Your task to perform on an android device: Go to accessibility settings Image 0: 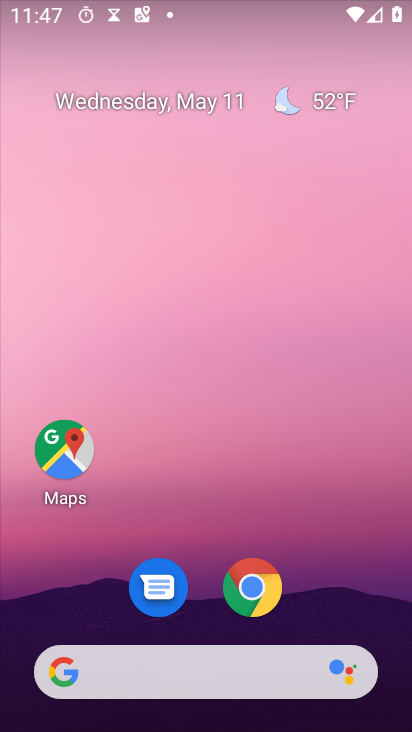
Step 0: drag from (182, 692) to (365, 141)
Your task to perform on an android device: Go to accessibility settings Image 1: 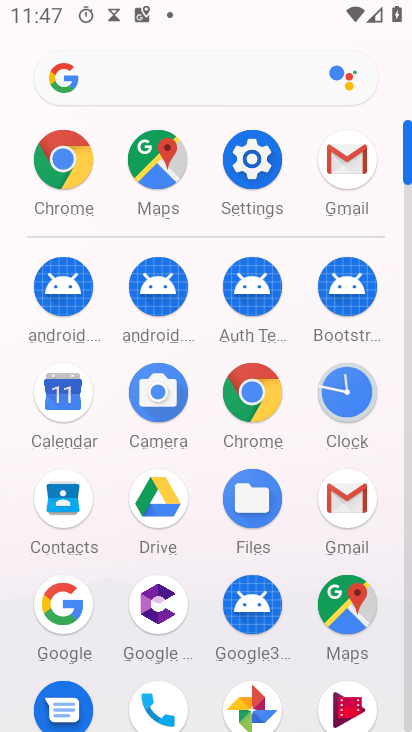
Step 1: click (275, 165)
Your task to perform on an android device: Go to accessibility settings Image 2: 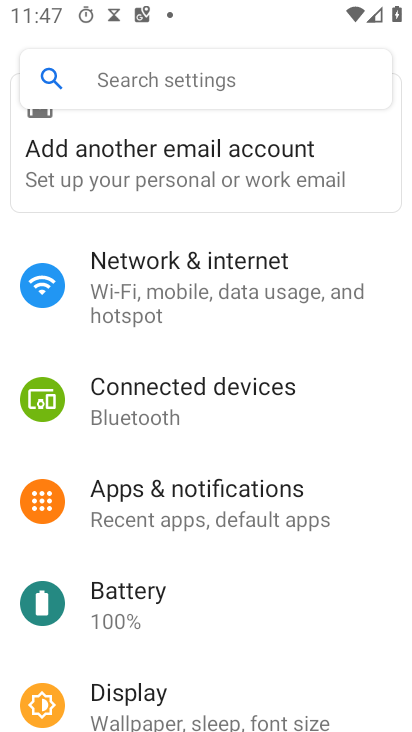
Step 2: click (99, 84)
Your task to perform on an android device: Go to accessibility settings Image 3: 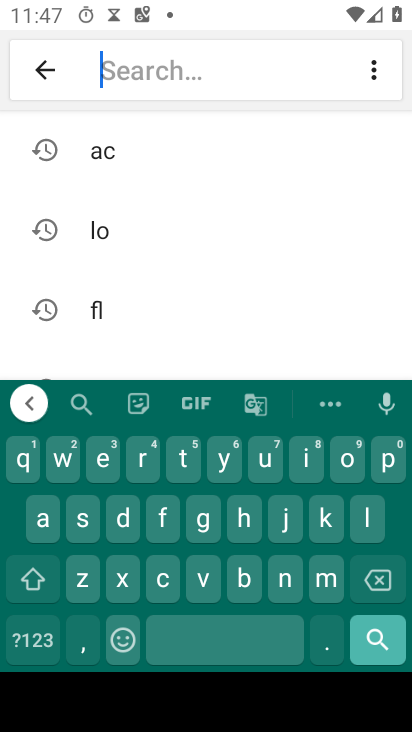
Step 3: click (38, 530)
Your task to perform on an android device: Go to accessibility settings Image 4: 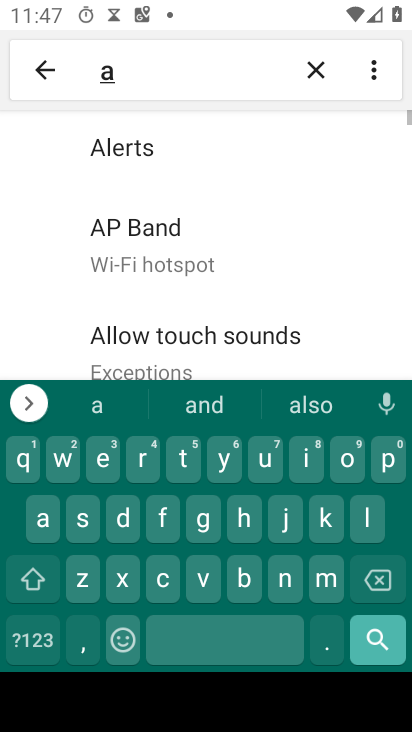
Step 4: click (164, 583)
Your task to perform on an android device: Go to accessibility settings Image 5: 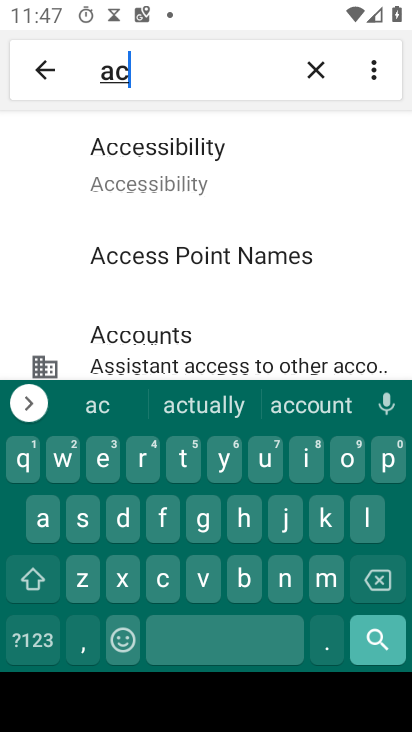
Step 5: click (163, 170)
Your task to perform on an android device: Go to accessibility settings Image 6: 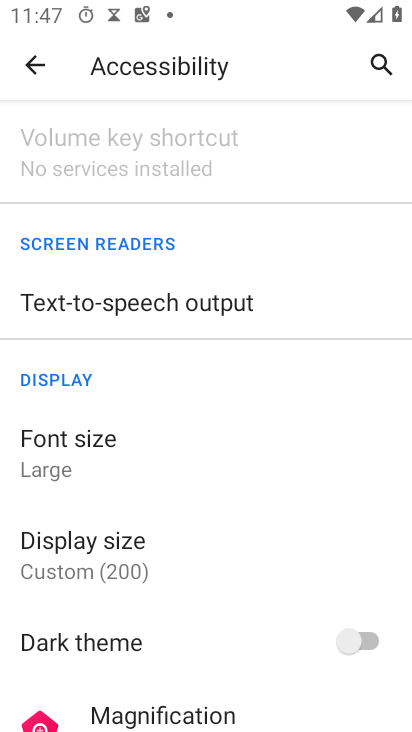
Step 6: task complete